Your task to perform on an android device: What's on my calendar tomorrow? Image 0: 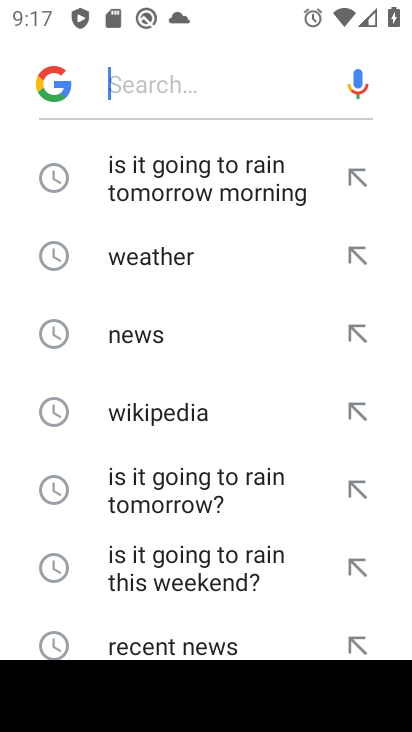
Step 0: press home button
Your task to perform on an android device: What's on my calendar tomorrow? Image 1: 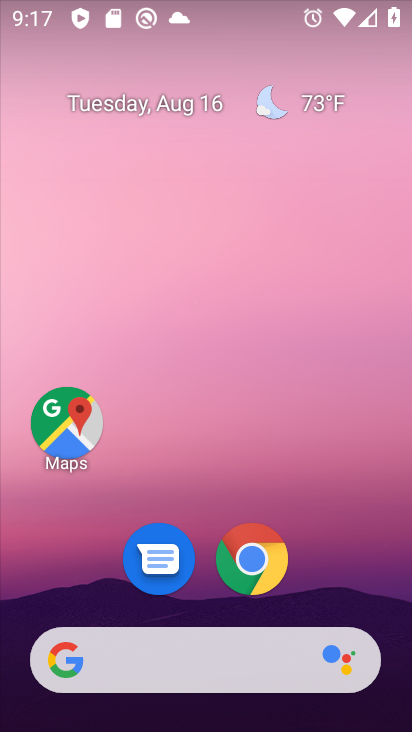
Step 1: drag from (189, 679) to (253, 185)
Your task to perform on an android device: What's on my calendar tomorrow? Image 2: 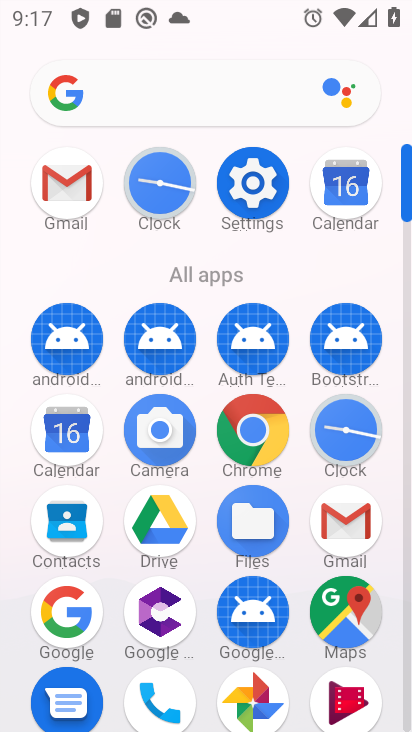
Step 2: click (350, 188)
Your task to perform on an android device: What's on my calendar tomorrow? Image 3: 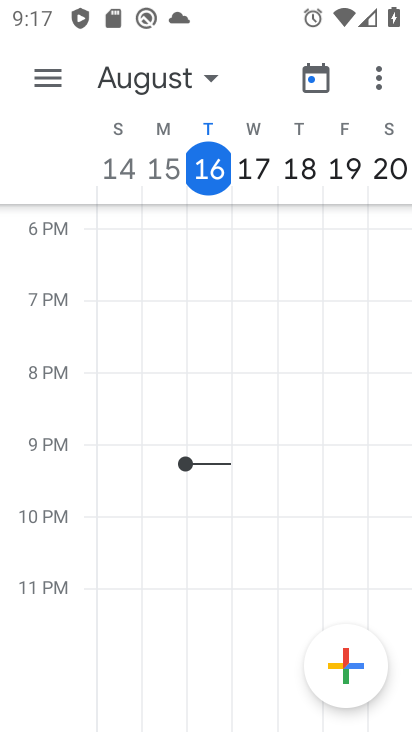
Step 3: click (208, 80)
Your task to perform on an android device: What's on my calendar tomorrow? Image 4: 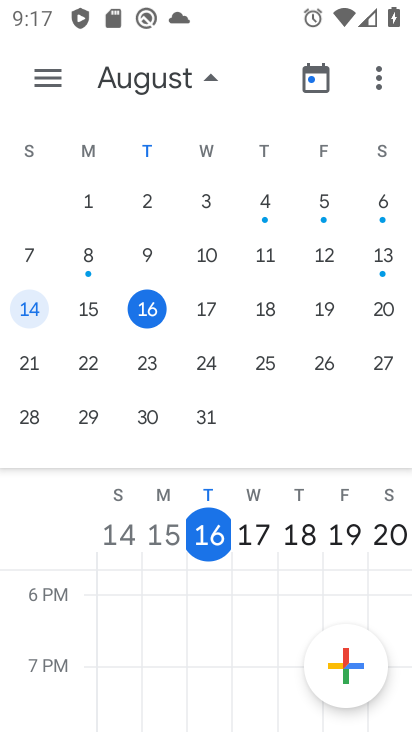
Step 4: click (146, 305)
Your task to perform on an android device: What's on my calendar tomorrow? Image 5: 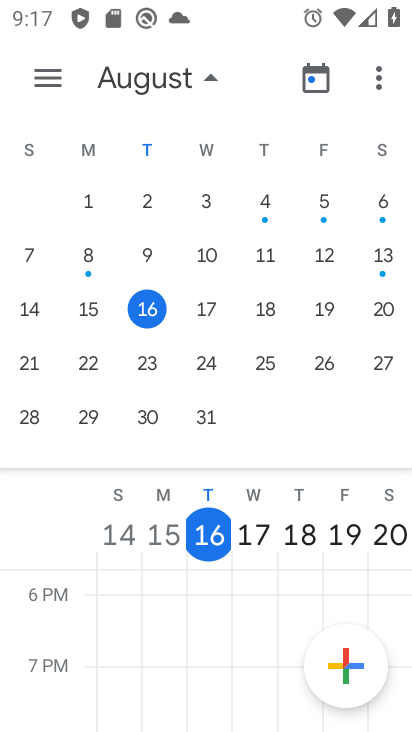
Step 5: click (212, 311)
Your task to perform on an android device: What's on my calendar tomorrow? Image 6: 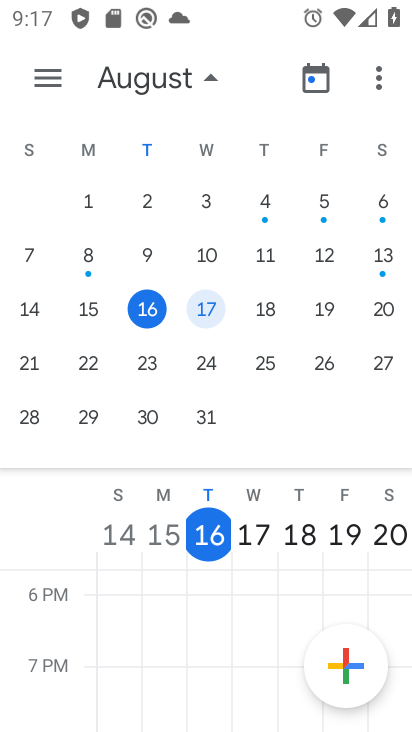
Step 6: click (50, 81)
Your task to perform on an android device: What's on my calendar tomorrow? Image 7: 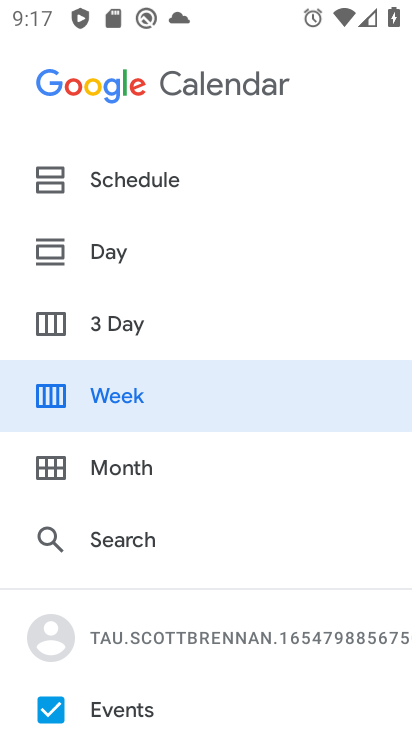
Step 7: click (92, 176)
Your task to perform on an android device: What's on my calendar tomorrow? Image 8: 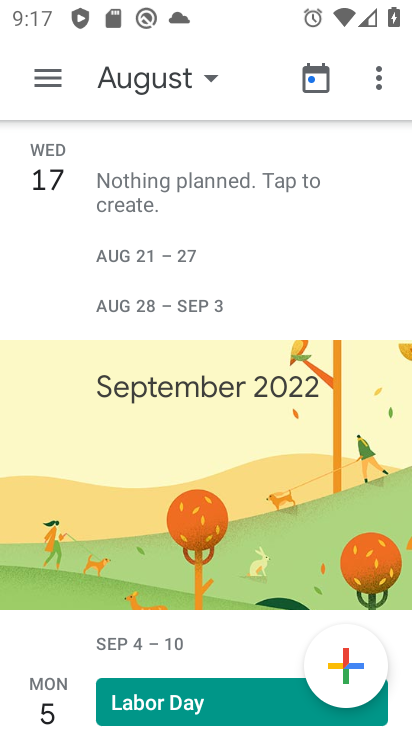
Step 8: task complete